Your task to perform on an android device: find photos in the google photos app Image 0: 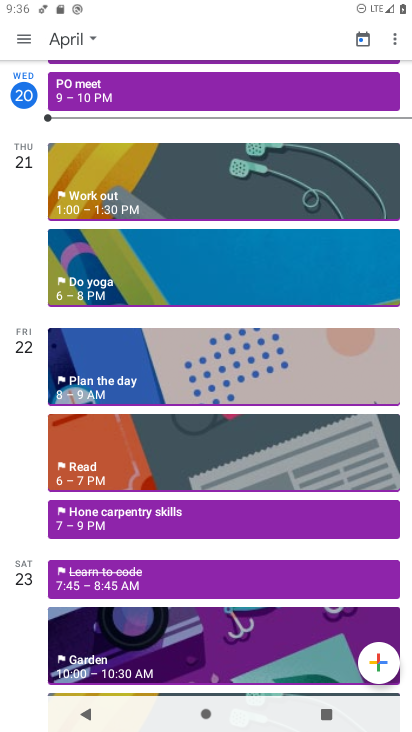
Step 0: press home button
Your task to perform on an android device: find photos in the google photos app Image 1: 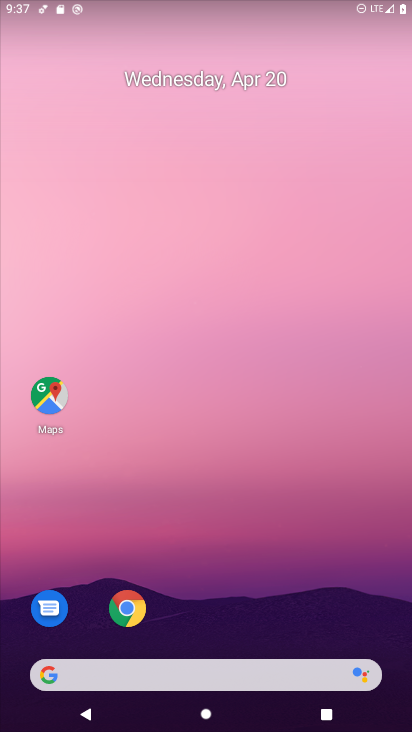
Step 1: drag from (177, 595) to (240, 27)
Your task to perform on an android device: find photos in the google photos app Image 2: 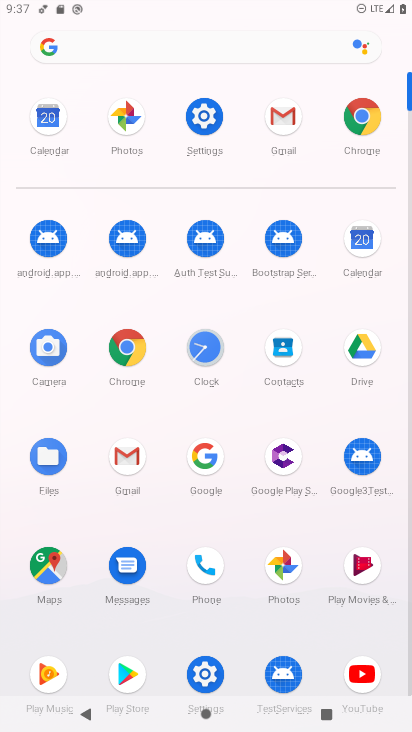
Step 2: click (287, 553)
Your task to perform on an android device: find photos in the google photos app Image 3: 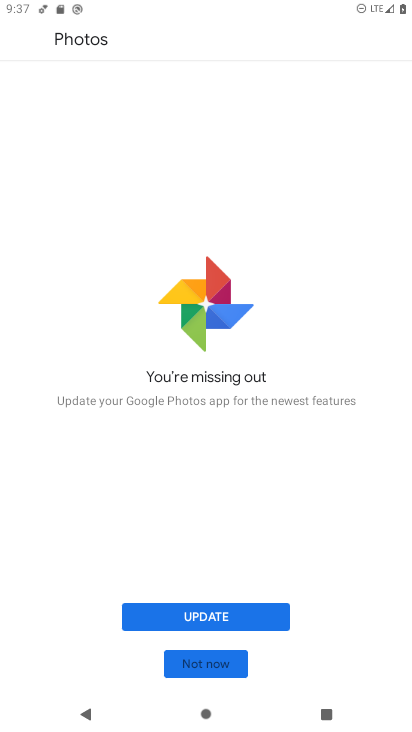
Step 3: click (215, 612)
Your task to perform on an android device: find photos in the google photos app Image 4: 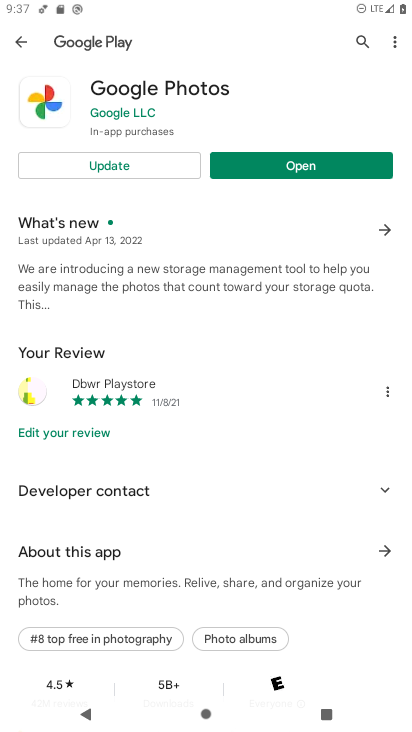
Step 4: click (124, 171)
Your task to perform on an android device: find photos in the google photos app Image 5: 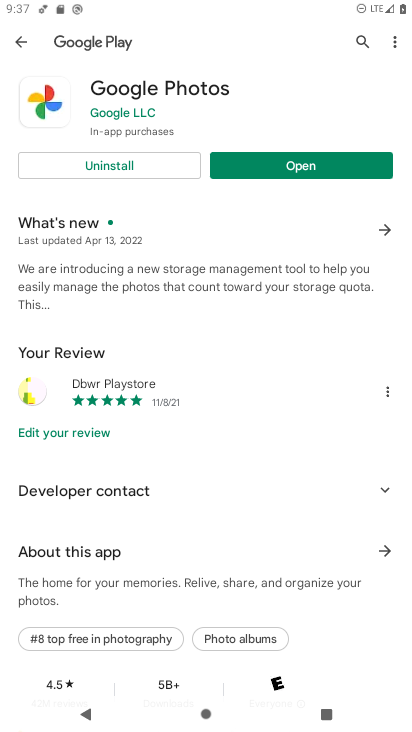
Step 5: click (345, 176)
Your task to perform on an android device: find photos in the google photos app Image 6: 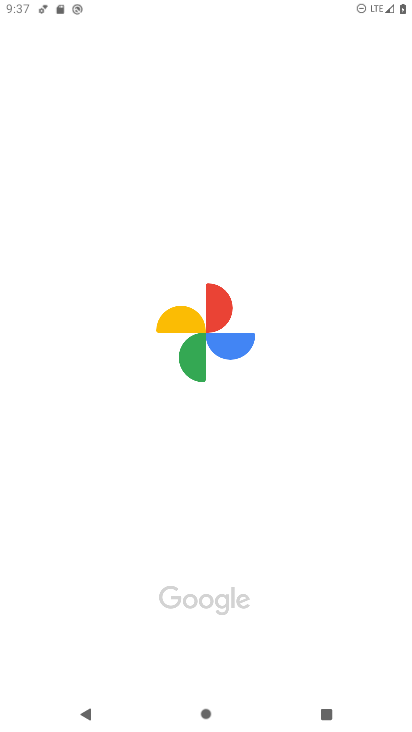
Step 6: click (328, 172)
Your task to perform on an android device: find photos in the google photos app Image 7: 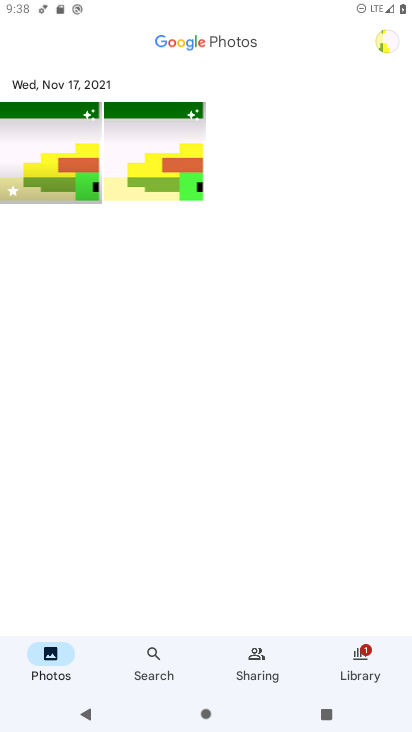
Step 7: task complete